Your task to perform on an android device: find photos in the google photos app Image 0: 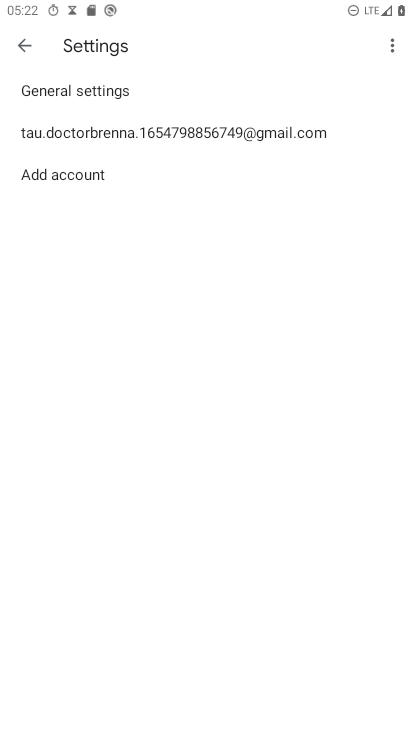
Step 0: press home button
Your task to perform on an android device: find photos in the google photos app Image 1: 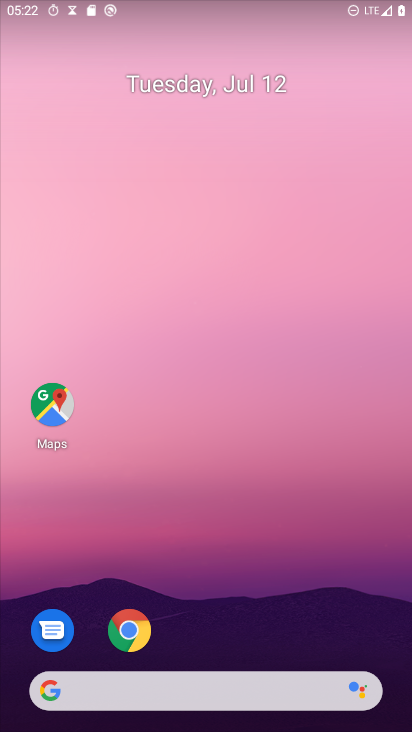
Step 1: drag from (268, 606) to (364, 45)
Your task to perform on an android device: find photos in the google photos app Image 2: 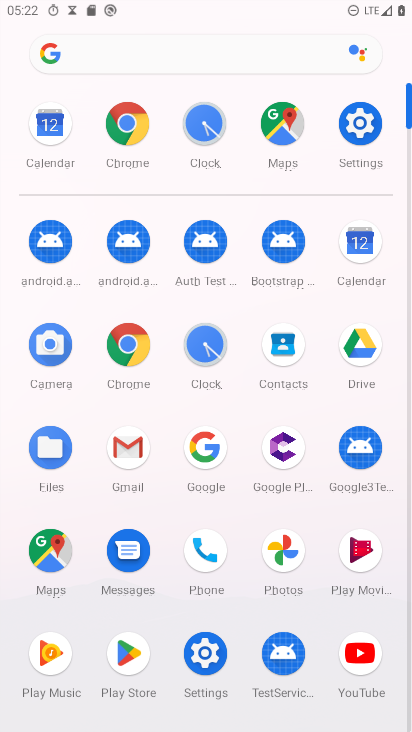
Step 2: click (299, 552)
Your task to perform on an android device: find photos in the google photos app Image 3: 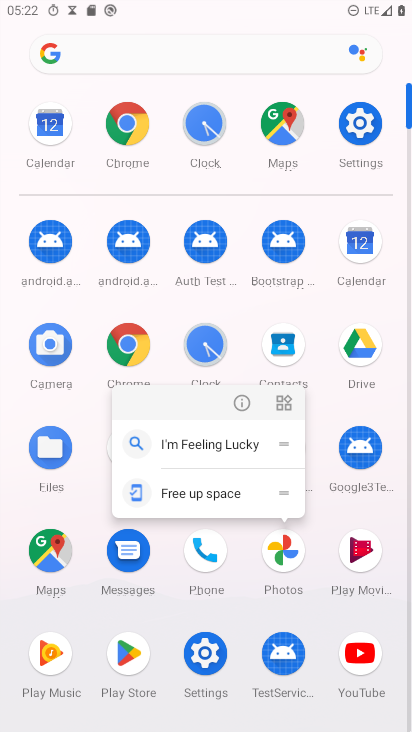
Step 3: click (294, 550)
Your task to perform on an android device: find photos in the google photos app Image 4: 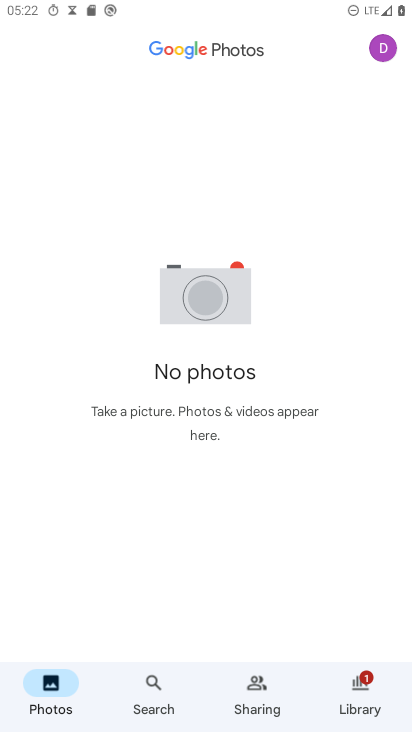
Step 4: task complete